Your task to perform on an android device: toggle improve location accuracy Image 0: 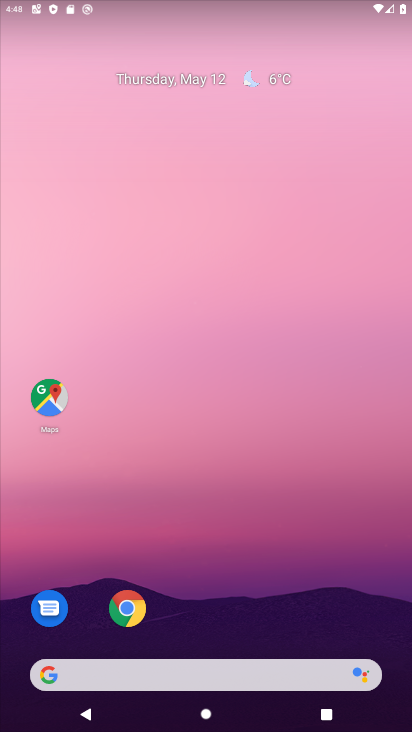
Step 0: drag from (170, 630) to (228, 331)
Your task to perform on an android device: toggle improve location accuracy Image 1: 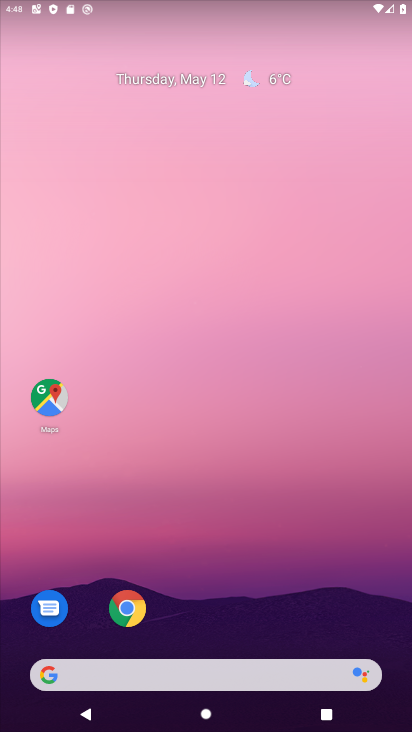
Step 1: drag from (188, 629) to (298, 39)
Your task to perform on an android device: toggle improve location accuracy Image 2: 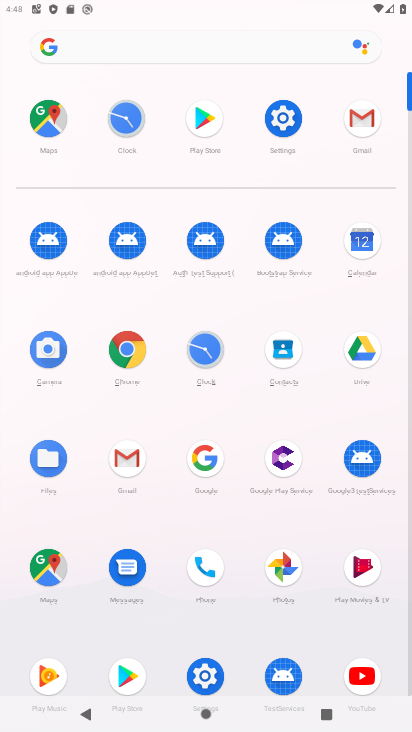
Step 2: click (286, 103)
Your task to perform on an android device: toggle improve location accuracy Image 3: 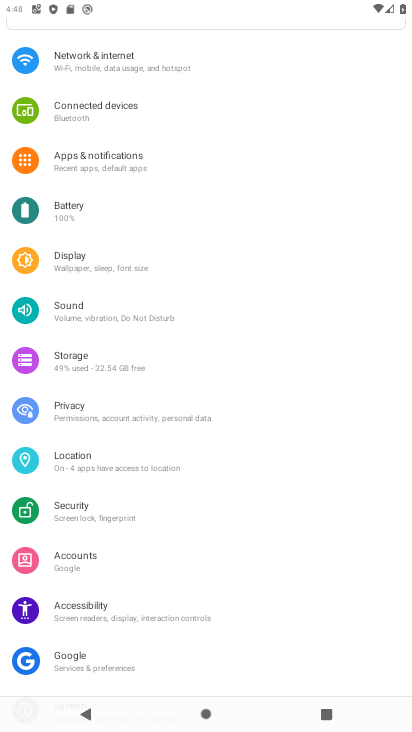
Step 3: click (73, 459)
Your task to perform on an android device: toggle improve location accuracy Image 4: 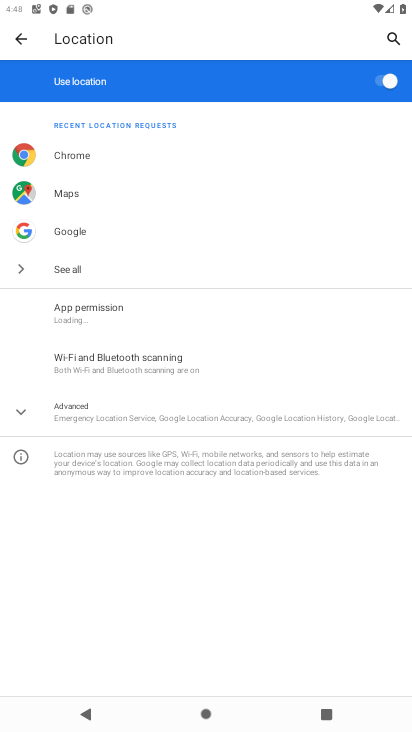
Step 4: click (105, 468)
Your task to perform on an android device: toggle improve location accuracy Image 5: 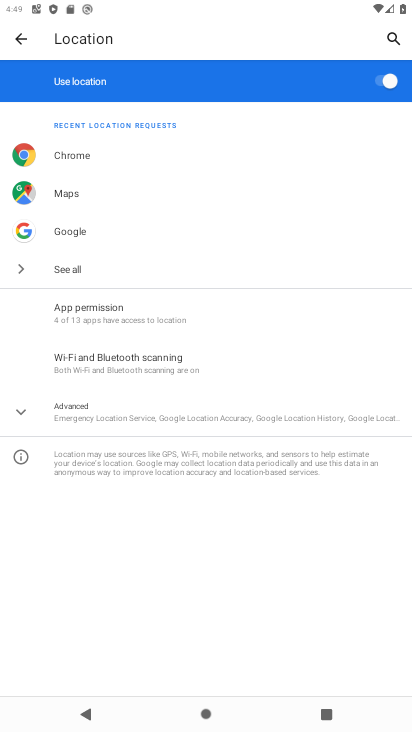
Step 5: click (81, 420)
Your task to perform on an android device: toggle improve location accuracy Image 6: 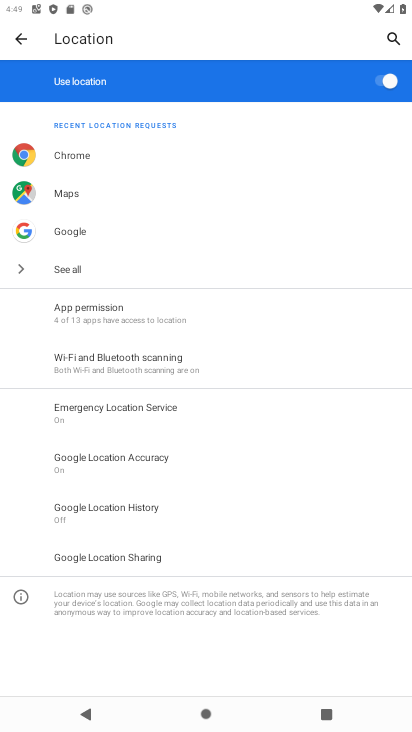
Step 6: click (191, 468)
Your task to perform on an android device: toggle improve location accuracy Image 7: 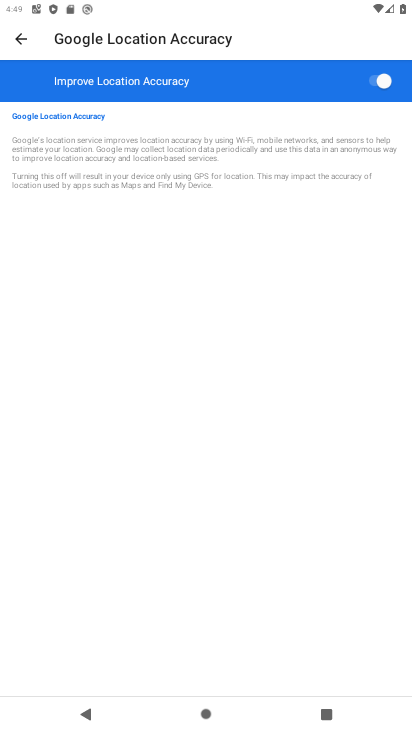
Step 7: click (377, 91)
Your task to perform on an android device: toggle improve location accuracy Image 8: 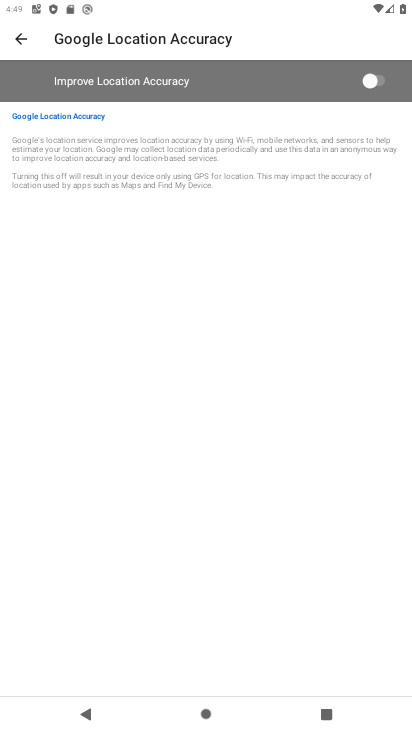
Step 8: click (377, 91)
Your task to perform on an android device: toggle improve location accuracy Image 9: 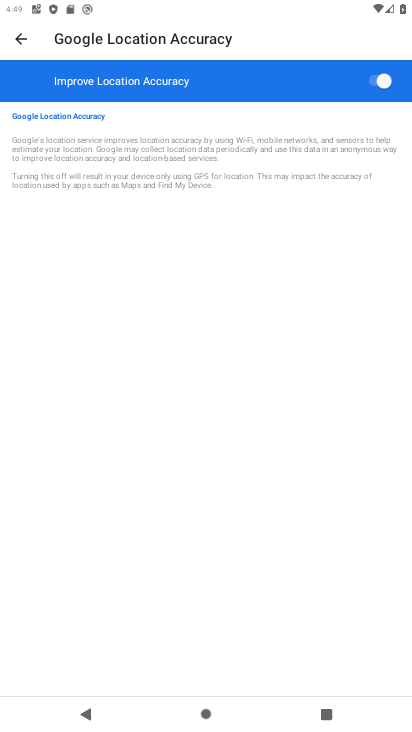
Step 9: click (377, 91)
Your task to perform on an android device: toggle improve location accuracy Image 10: 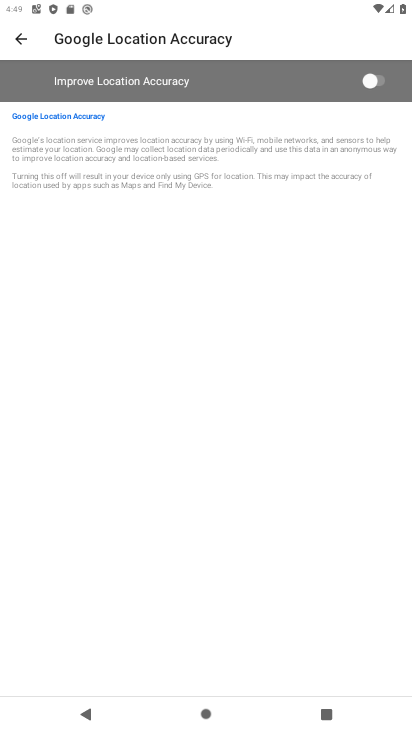
Step 10: task complete